Your task to perform on an android device: Open the Play Movies app and select the watchlist tab. Image 0: 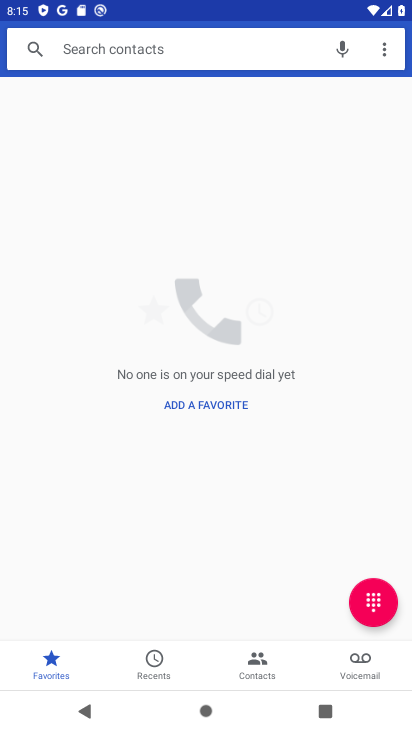
Step 0: press home button
Your task to perform on an android device: Open the Play Movies app and select the watchlist tab. Image 1: 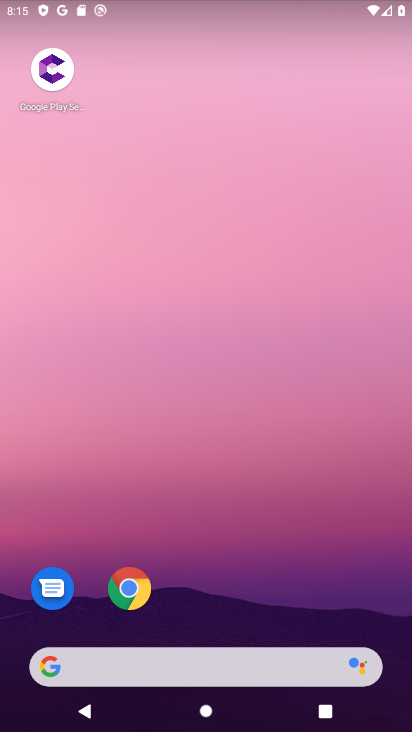
Step 1: drag from (228, 625) to (218, 184)
Your task to perform on an android device: Open the Play Movies app and select the watchlist tab. Image 2: 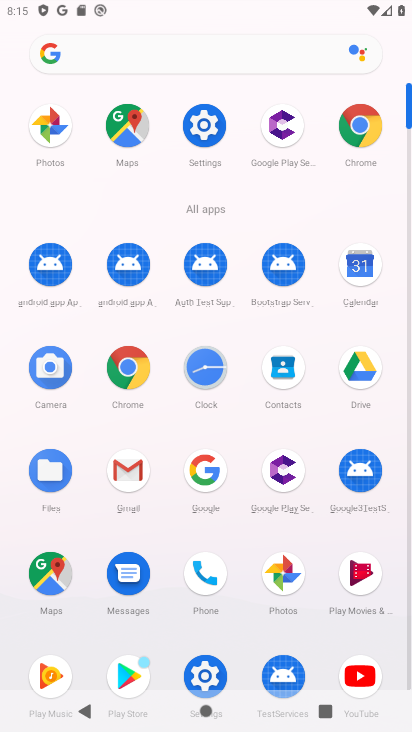
Step 2: click (372, 584)
Your task to perform on an android device: Open the Play Movies app and select the watchlist tab. Image 3: 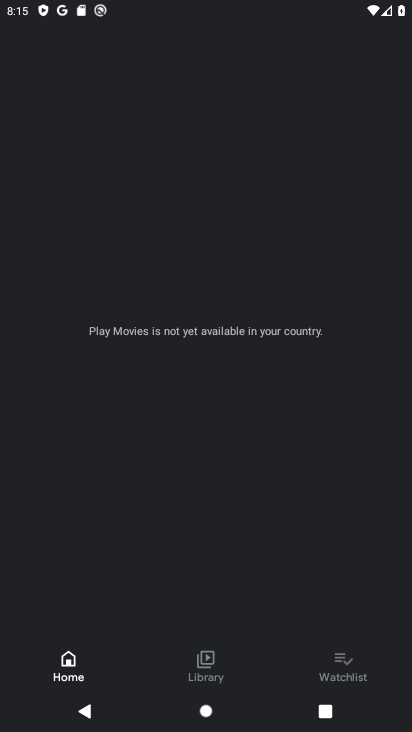
Step 3: click (353, 659)
Your task to perform on an android device: Open the Play Movies app and select the watchlist tab. Image 4: 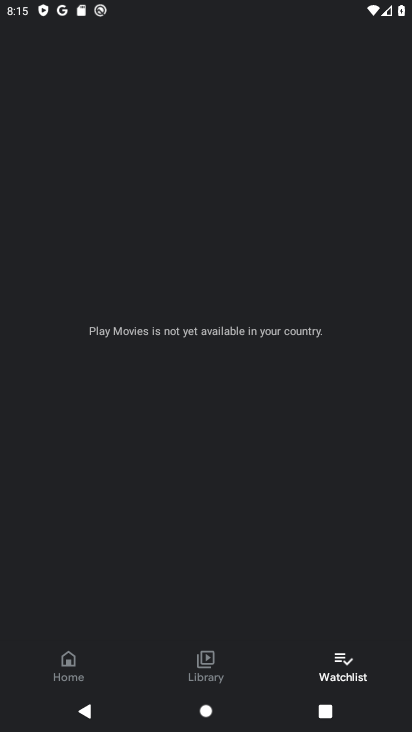
Step 4: task complete